Your task to perform on an android device: Show the shopping cart on bestbuy.com. Search for "razer huntsman" on bestbuy.com, select the first entry, add it to the cart, then select checkout. Image 0: 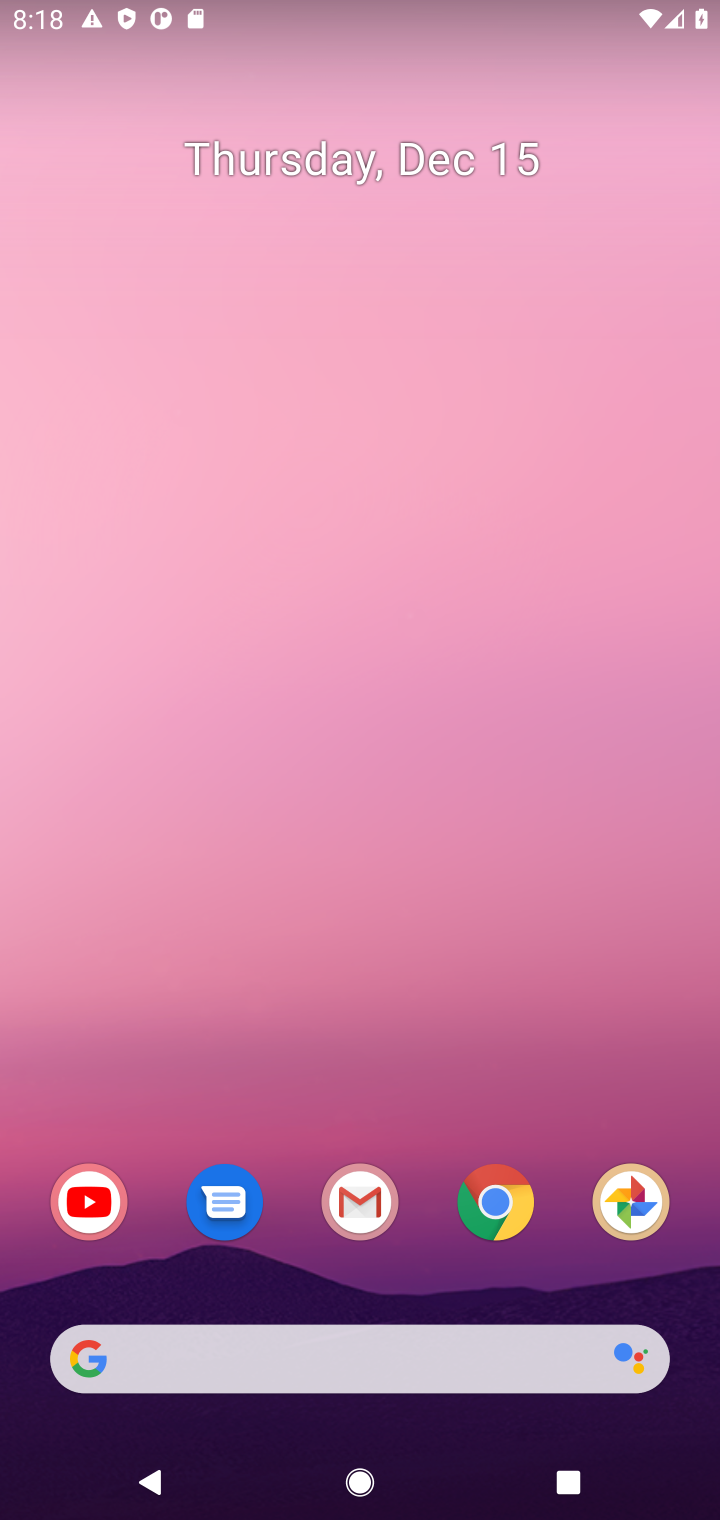
Step 0: click (497, 1206)
Your task to perform on an android device: Show the shopping cart on bestbuy.com. Search for "razer huntsman" on bestbuy.com, select the first entry, add it to the cart, then select checkout. Image 1: 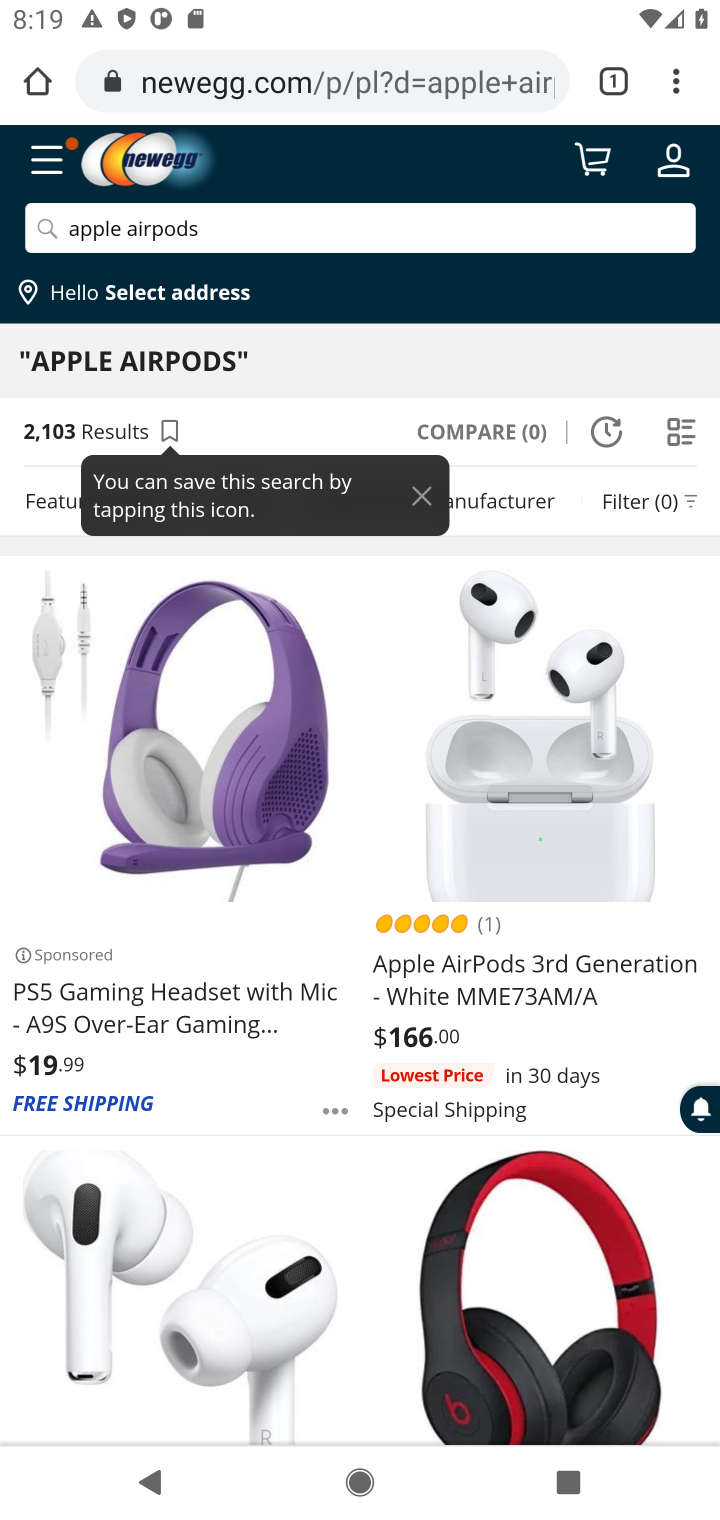
Step 1: click (369, 92)
Your task to perform on an android device: Show the shopping cart on bestbuy.com. Search for "razer huntsman" on bestbuy.com, select the first entry, add it to the cart, then select checkout. Image 2: 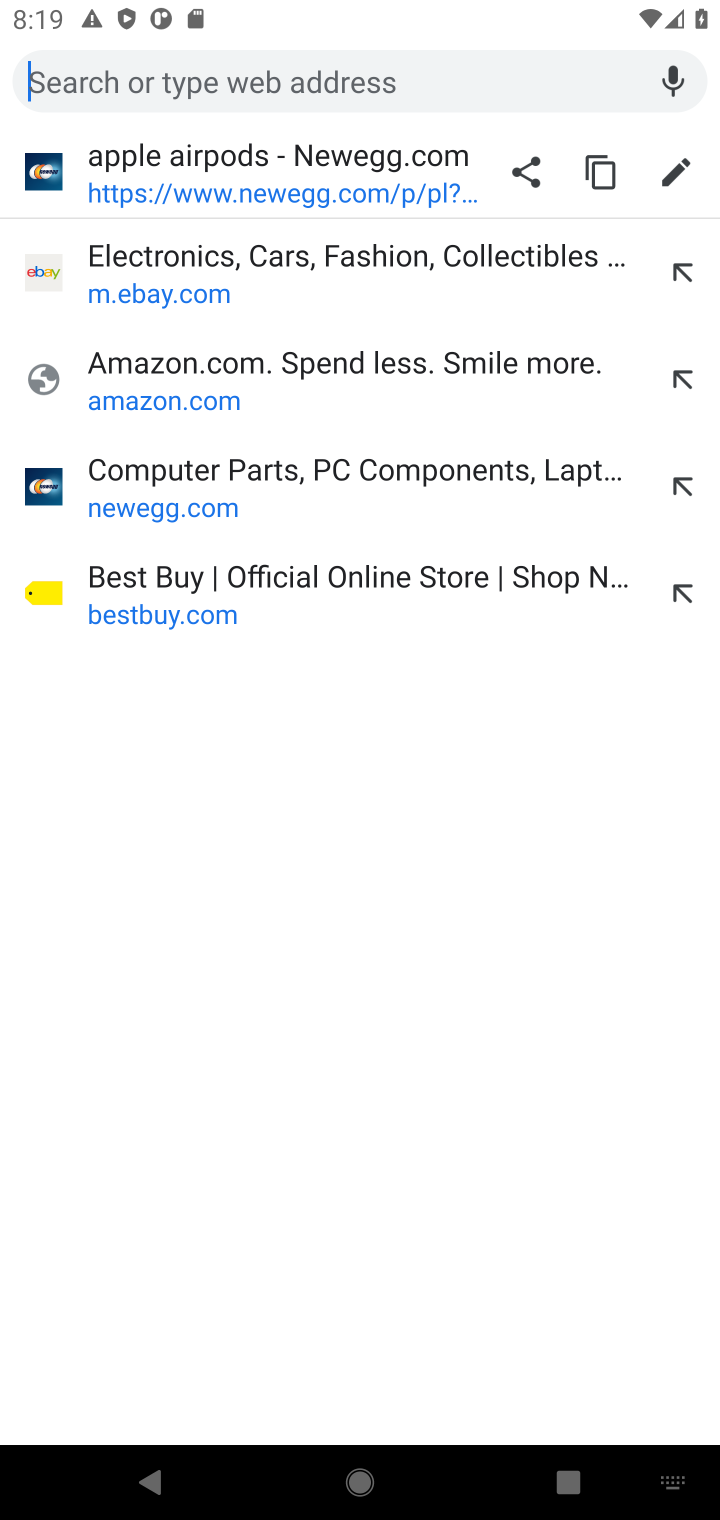
Step 2: click (156, 587)
Your task to perform on an android device: Show the shopping cart on bestbuy.com. Search for "razer huntsman" on bestbuy.com, select the first entry, add it to the cart, then select checkout. Image 3: 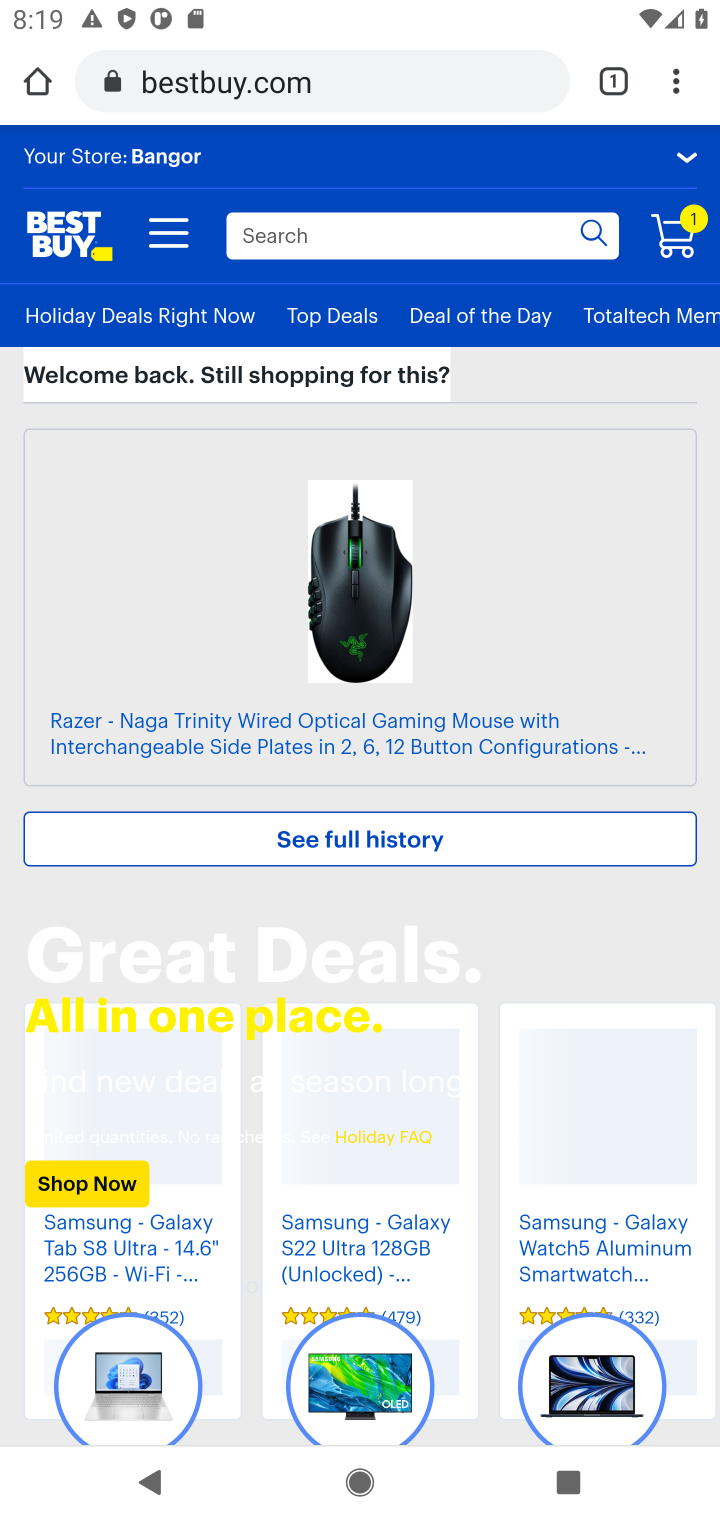
Step 3: click (670, 233)
Your task to perform on an android device: Show the shopping cart on bestbuy.com. Search for "razer huntsman" on bestbuy.com, select the first entry, add it to the cart, then select checkout. Image 4: 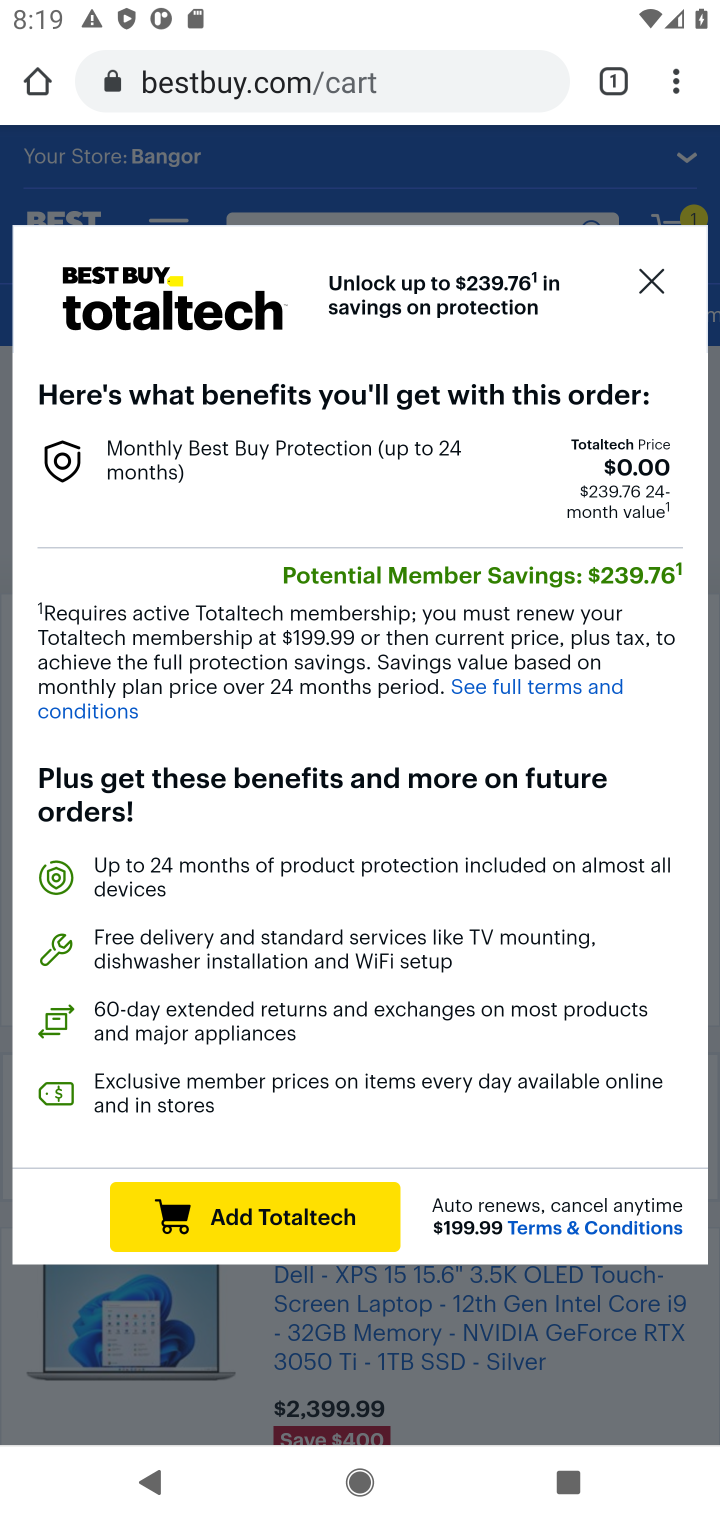
Step 4: click (652, 286)
Your task to perform on an android device: Show the shopping cart on bestbuy.com. Search for "razer huntsman" on bestbuy.com, select the first entry, add it to the cart, then select checkout. Image 5: 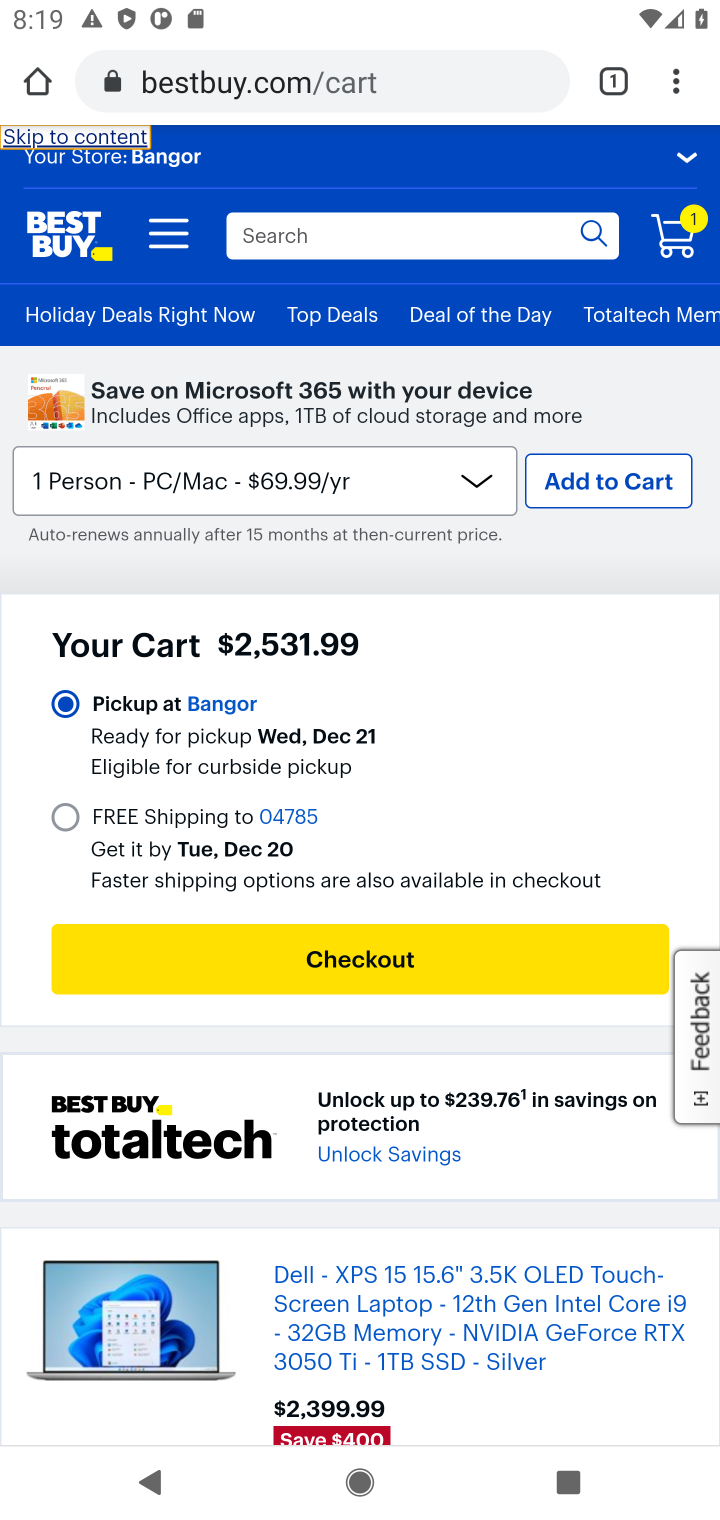
Step 5: click (372, 248)
Your task to perform on an android device: Show the shopping cart on bestbuy.com. Search for "razer huntsman" on bestbuy.com, select the first entry, add it to the cart, then select checkout. Image 6: 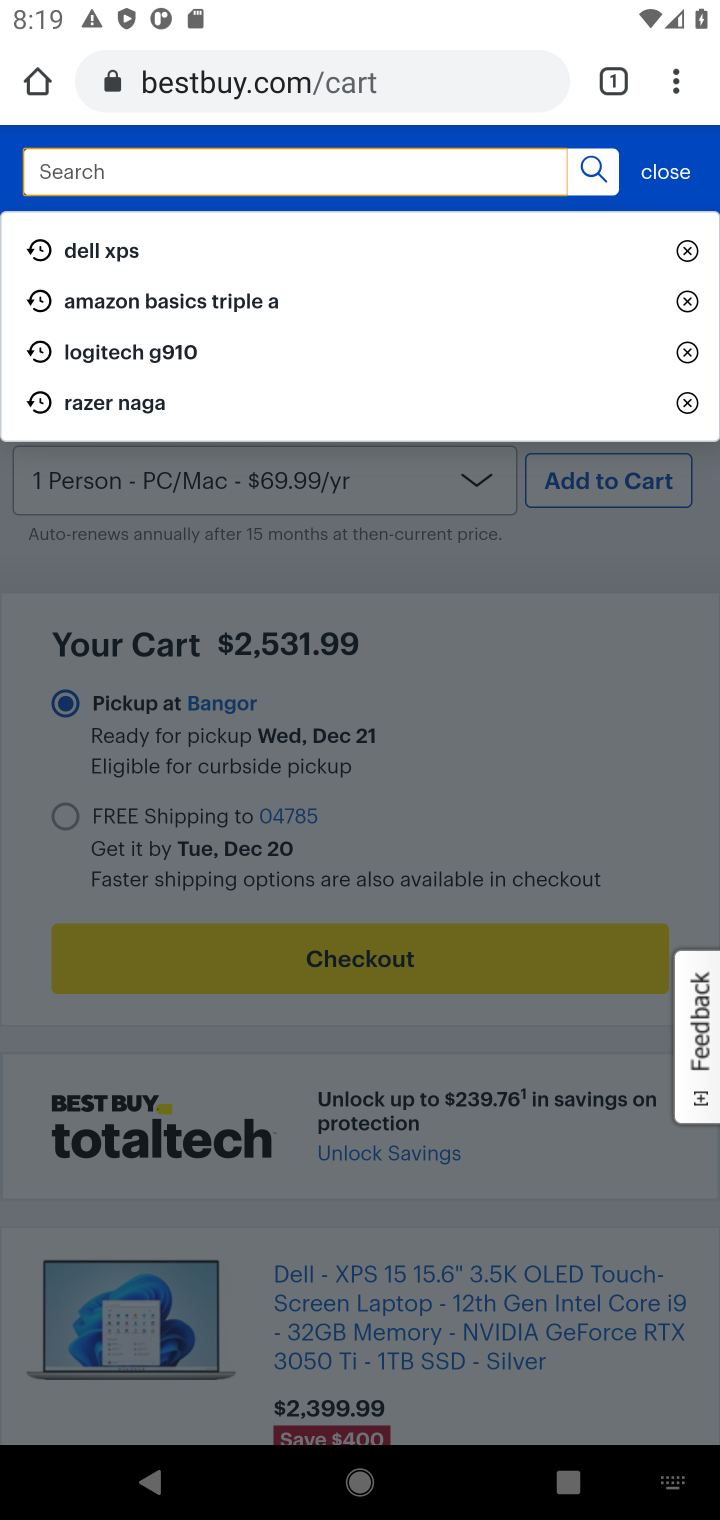
Step 6: type "razer huntsman"
Your task to perform on an android device: Show the shopping cart on bestbuy.com. Search for "razer huntsman" on bestbuy.com, select the first entry, add it to the cart, then select checkout. Image 7: 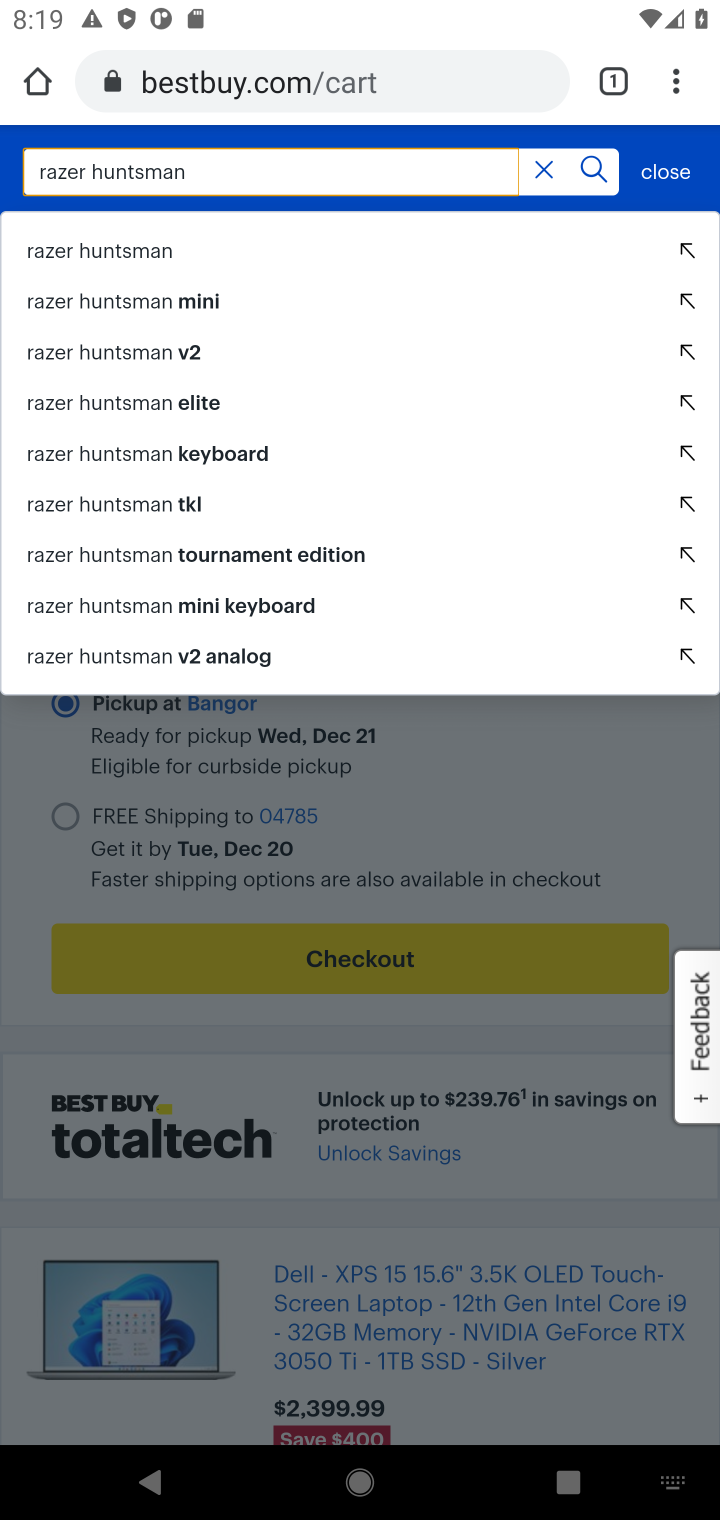
Step 7: click (110, 245)
Your task to perform on an android device: Show the shopping cart on bestbuy.com. Search for "razer huntsman" on bestbuy.com, select the first entry, add it to the cart, then select checkout. Image 8: 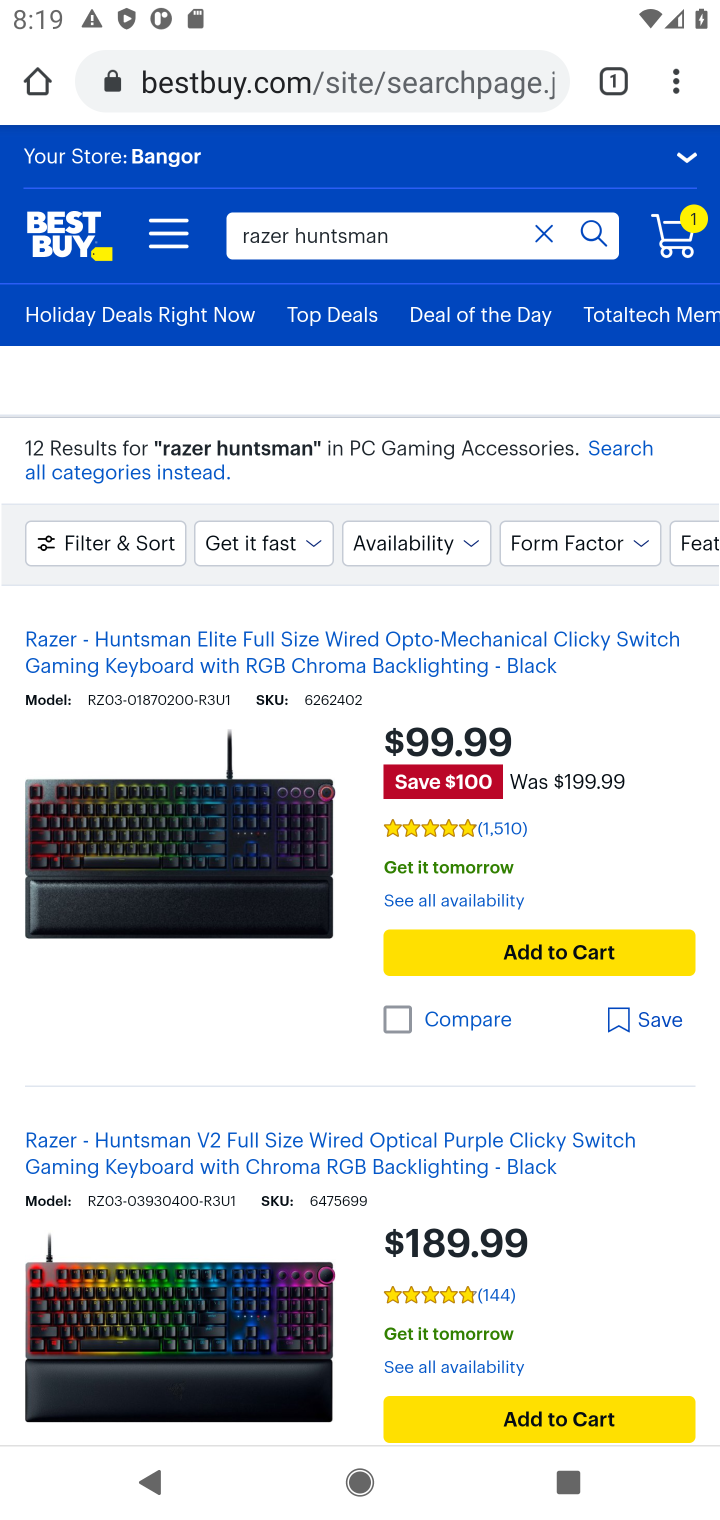
Step 8: click (469, 939)
Your task to perform on an android device: Show the shopping cart on bestbuy.com. Search for "razer huntsman" on bestbuy.com, select the first entry, add it to the cart, then select checkout. Image 9: 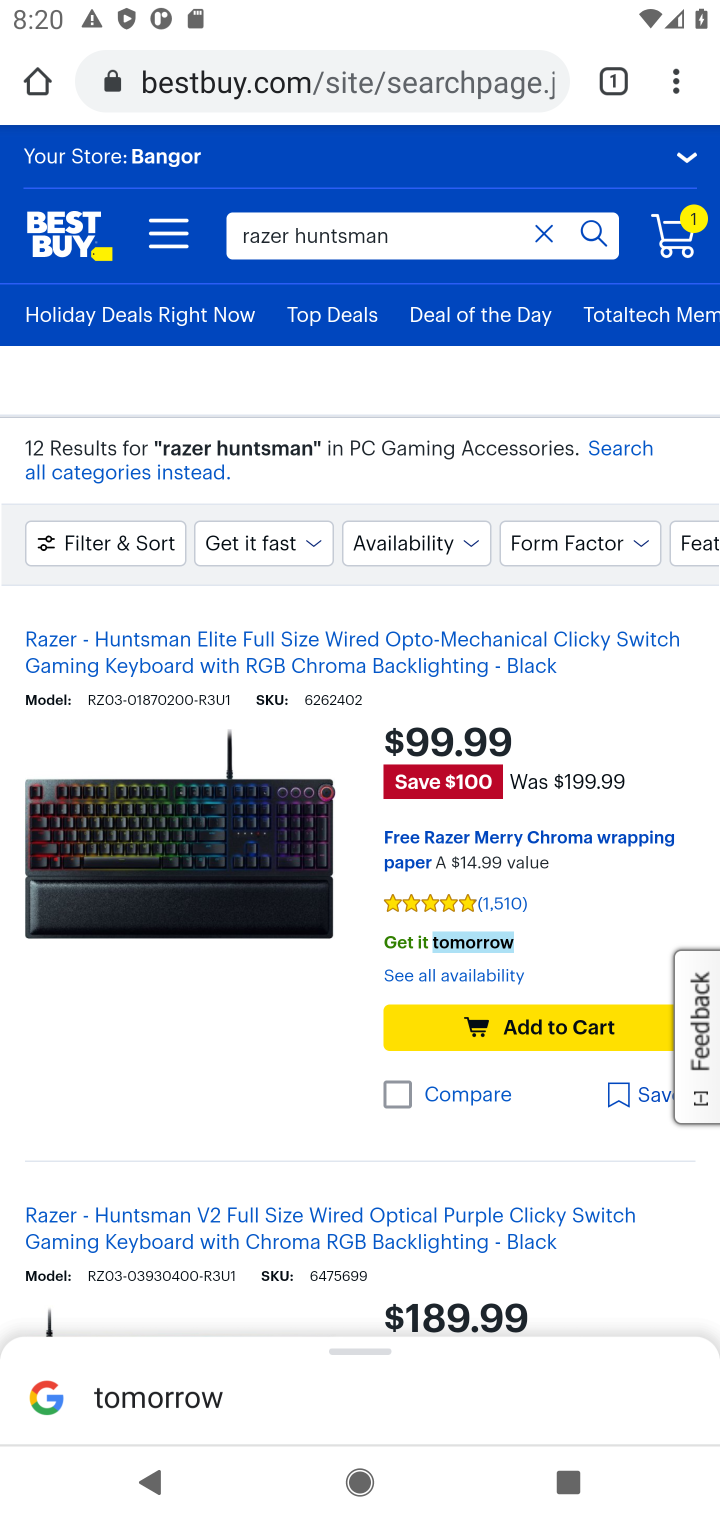
Step 9: click (212, 654)
Your task to perform on an android device: Show the shopping cart on bestbuy.com. Search for "razer huntsman" on bestbuy.com, select the first entry, add it to the cart, then select checkout. Image 10: 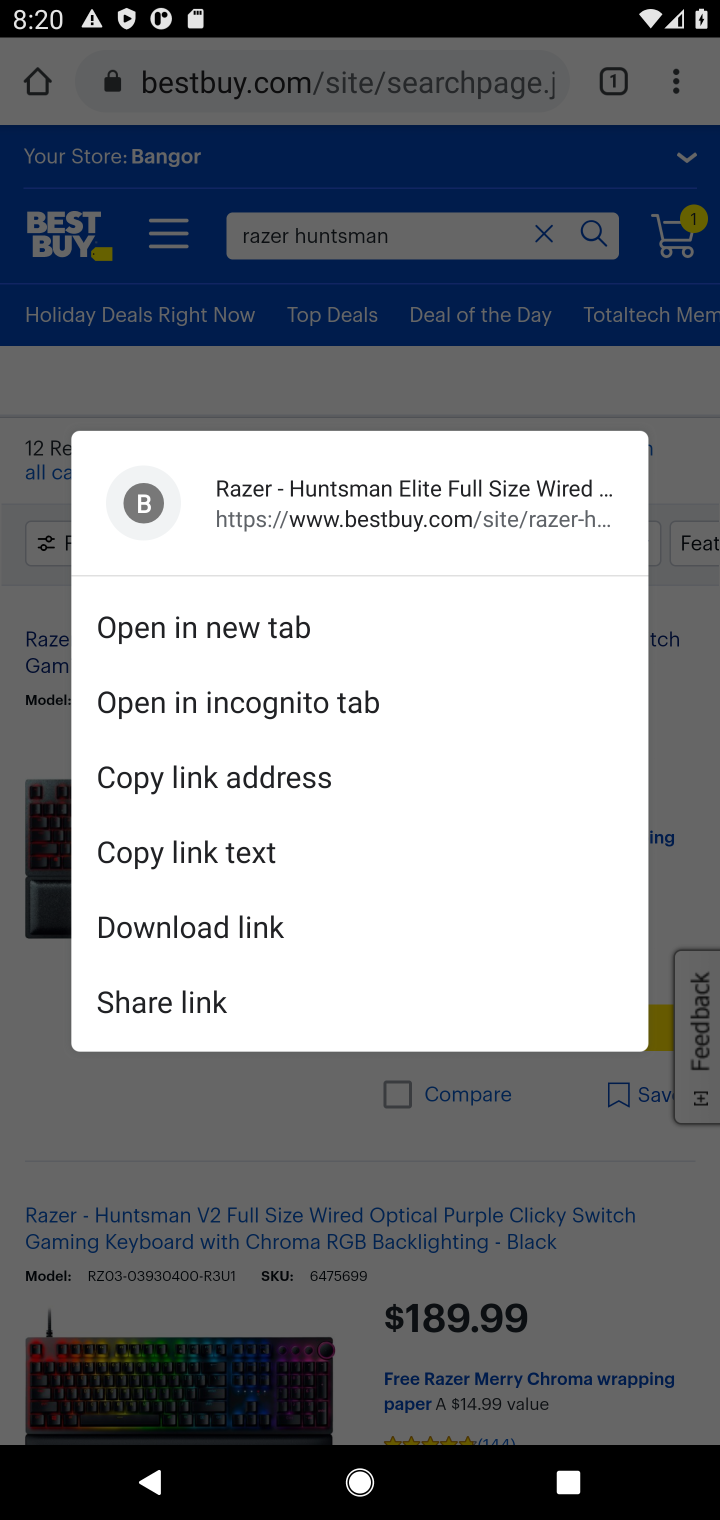
Step 10: click (48, 657)
Your task to perform on an android device: Show the shopping cart on bestbuy.com. Search for "razer huntsman" on bestbuy.com, select the first entry, add it to the cart, then select checkout. Image 11: 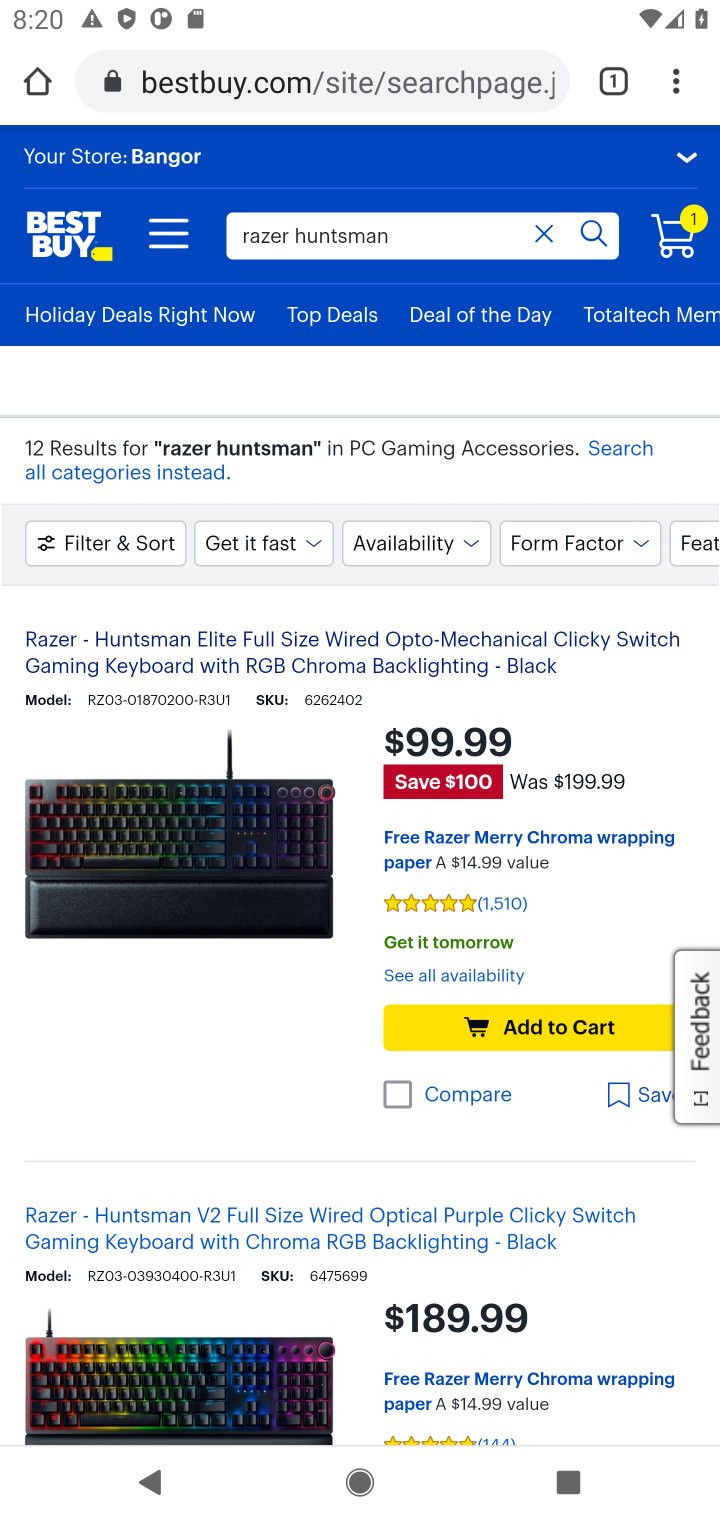
Step 11: click (48, 657)
Your task to perform on an android device: Show the shopping cart on bestbuy.com. Search for "razer huntsman" on bestbuy.com, select the first entry, add it to the cart, then select checkout. Image 12: 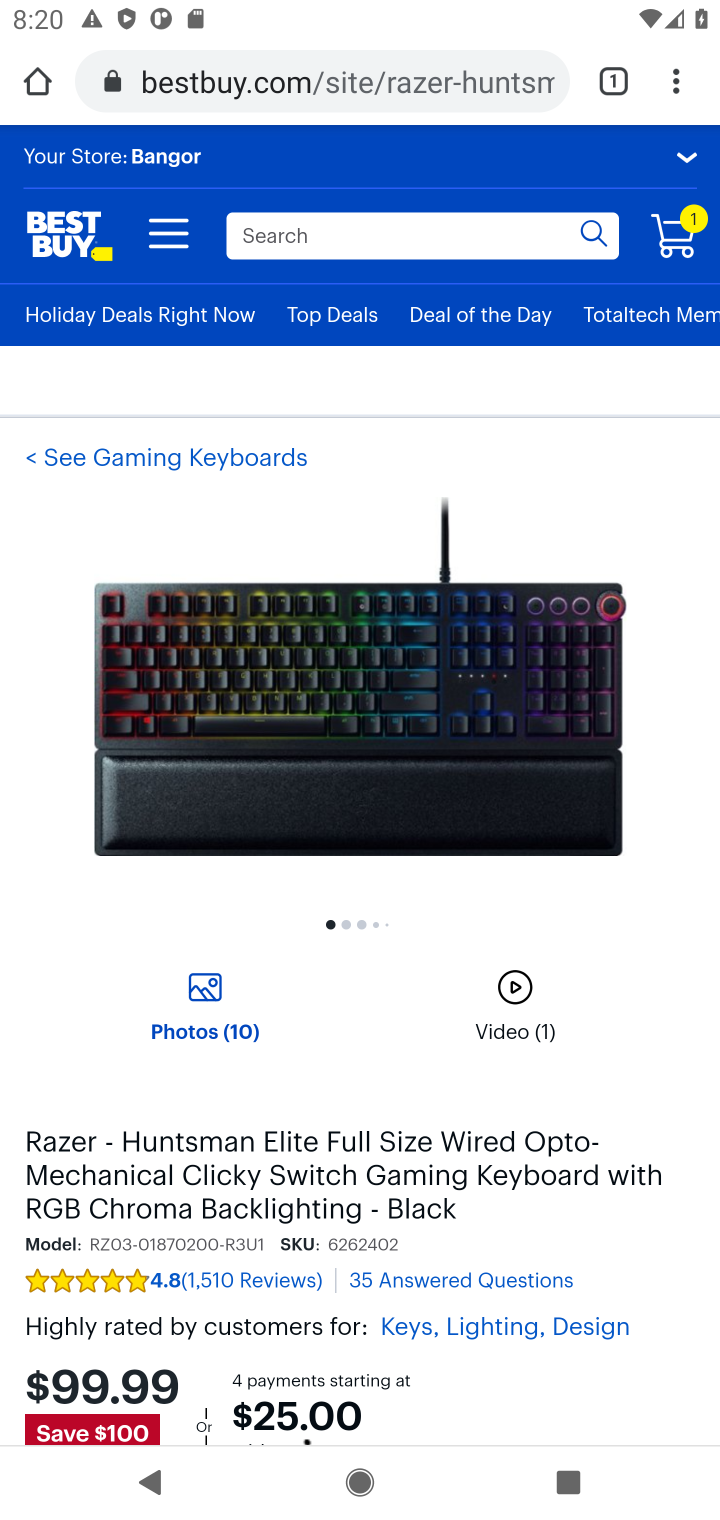
Step 12: drag from (411, 1161) to (391, 644)
Your task to perform on an android device: Show the shopping cart on bestbuy.com. Search for "razer huntsman" on bestbuy.com, select the first entry, add it to the cart, then select checkout. Image 13: 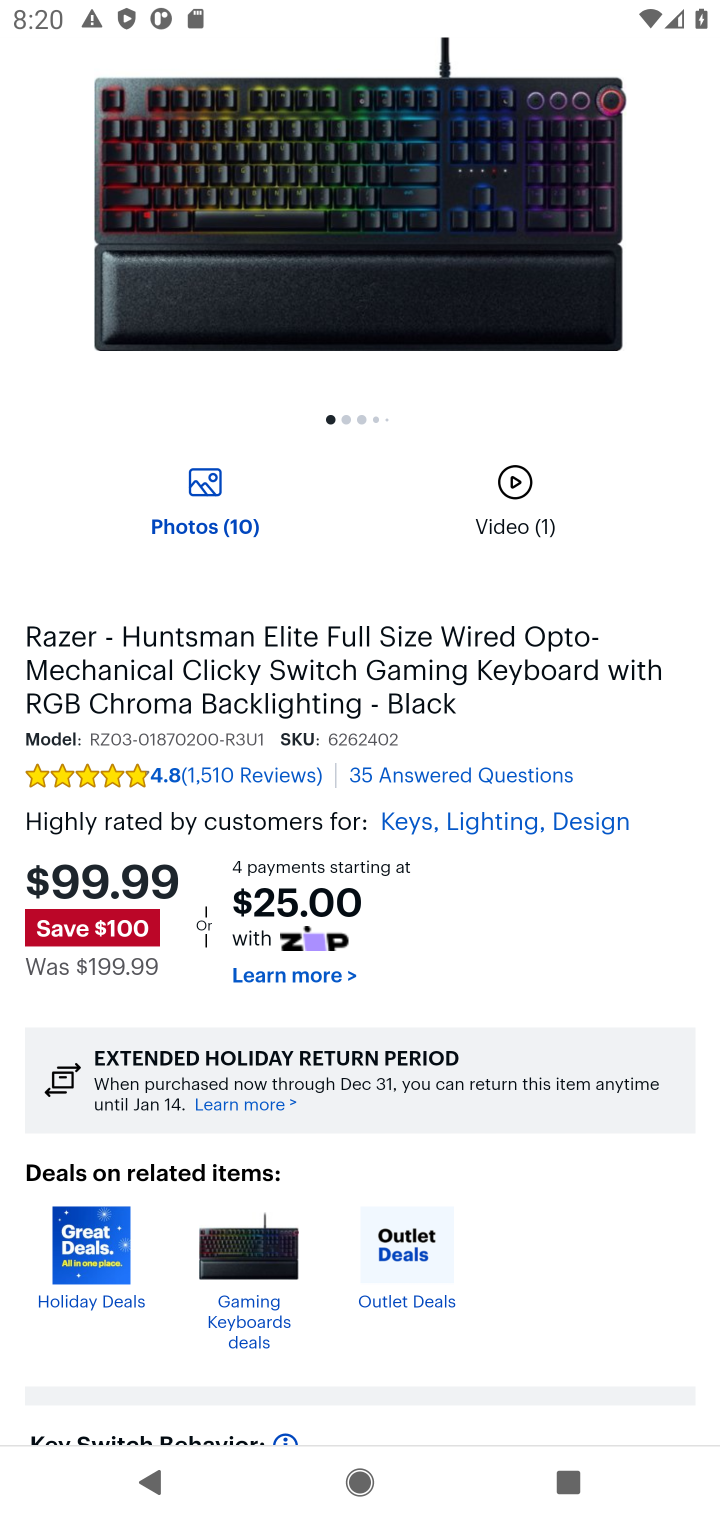
Step 13: drag from (392, 1072) to (364, 532)
Your task to perform on an android device: Show the shopping cart on bestbuy.com. Search for "razer huntsman" on bestbuy.com, select the first entry, add it to the cart, then select checkout. Image 14: 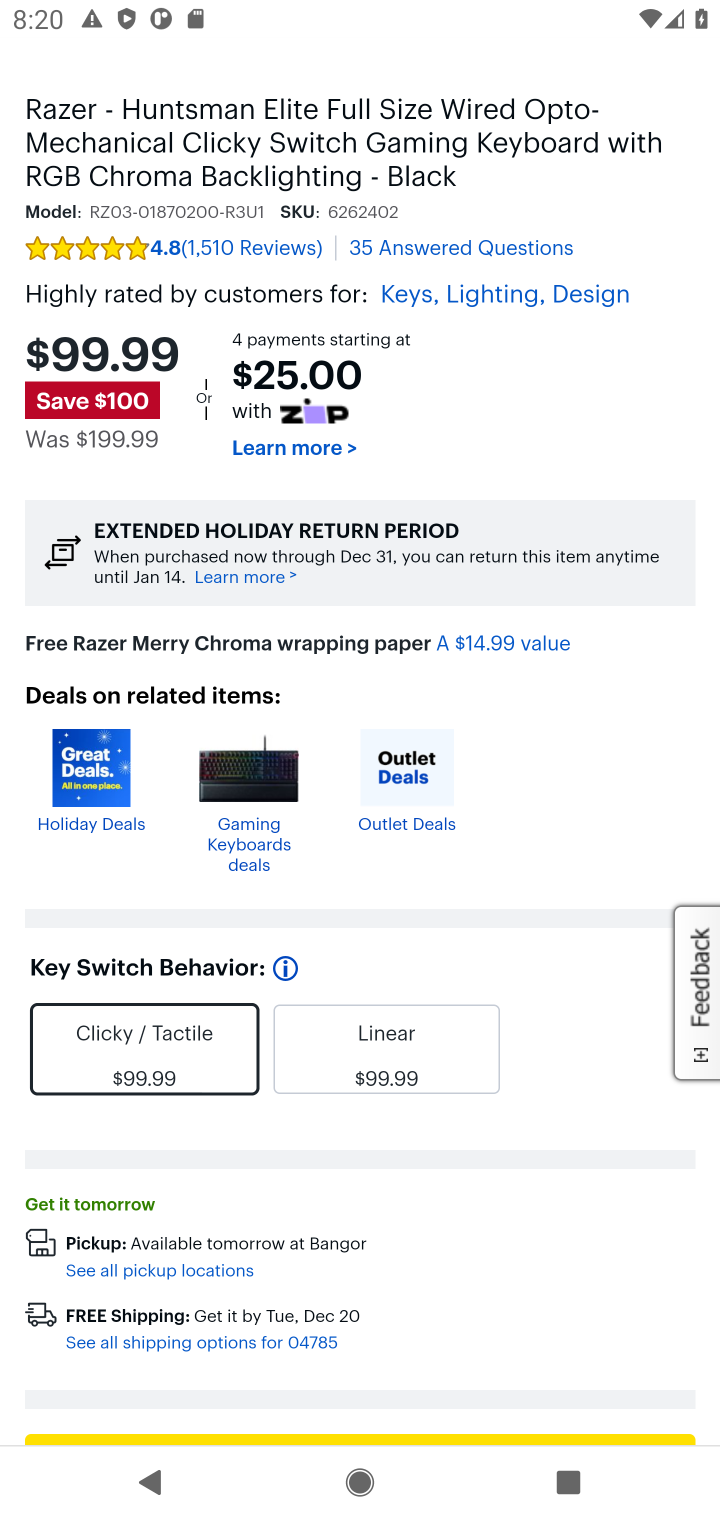
Step 14: drag from (428, 1187) to (437, 802)
Your task to perform on an android device: Show the shopping cart on bestbuy.com. Search for "razer huntsman" on bestbuy.com, select the first entry, add it to the cart, then select checkout. Image 15: 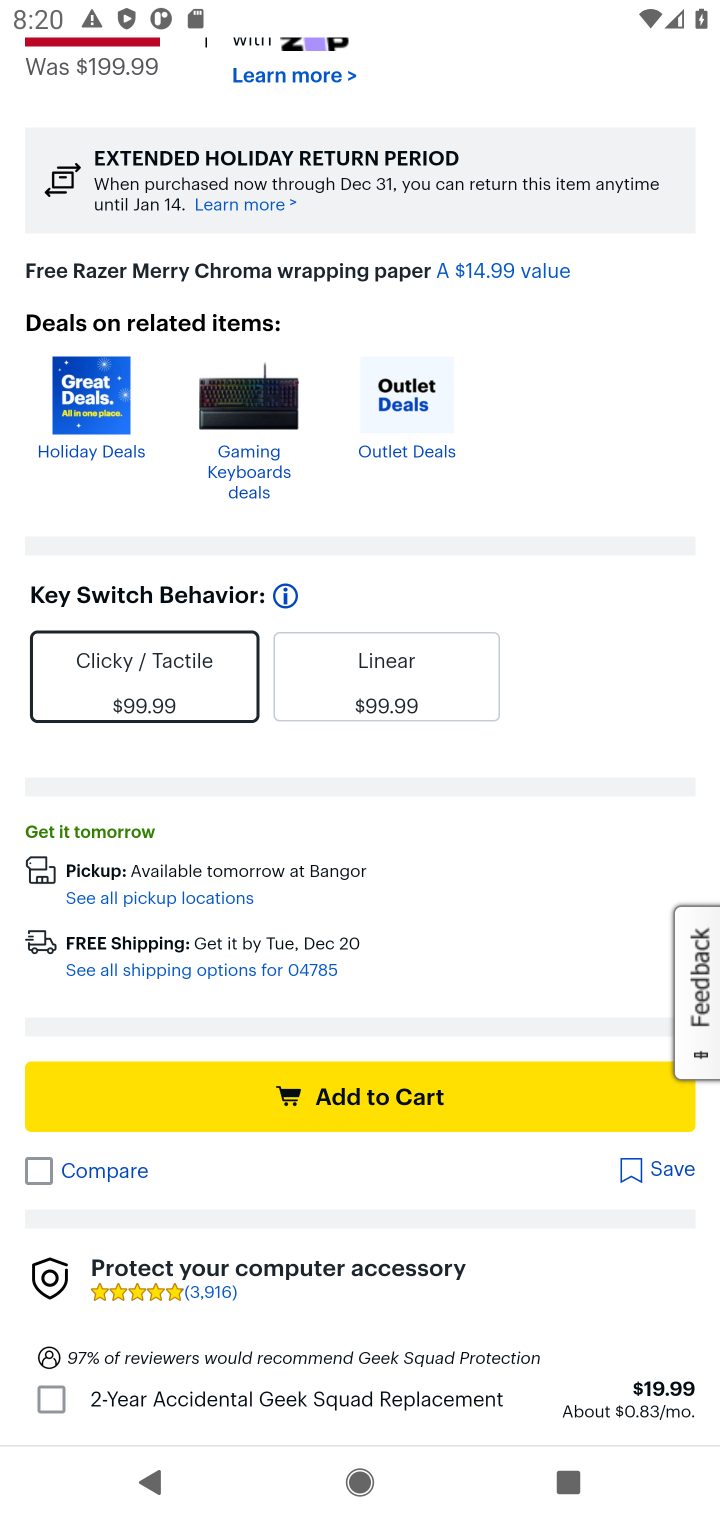
Step 15: click (358, 1092)
Your task to perform on an android device: Show the shopping cart on bestbuy.com. Search for "razer huntsman" on bestbuy.com, select the first entry, add it to the cart, then select checkout. Image 16: 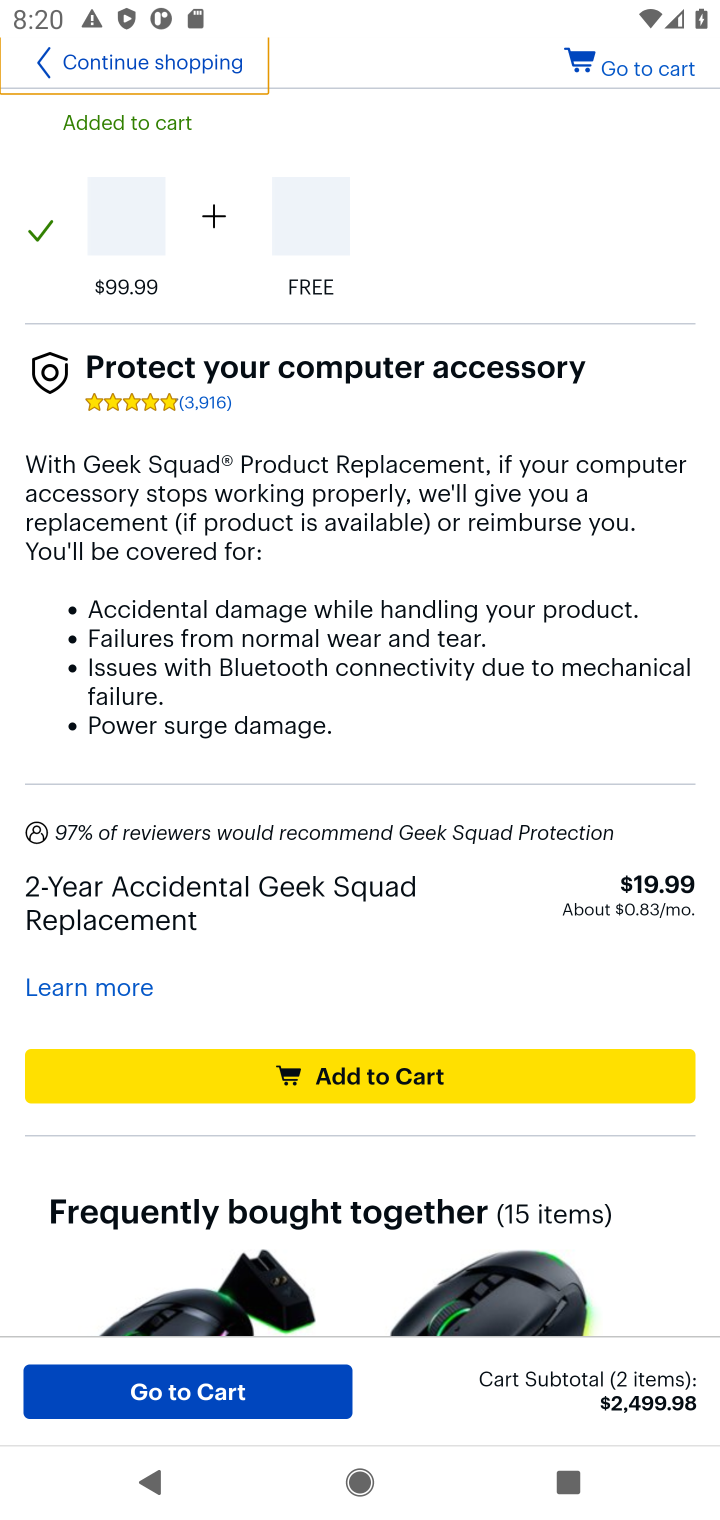
Step 16: click (629, 78)
Your task to perform on an android device: Show the shopping cart on bestbuy.com. Search for "razer huntsman" on bestbuy.com, select the first entry, add it to the cart, then select checkout. Image 17: 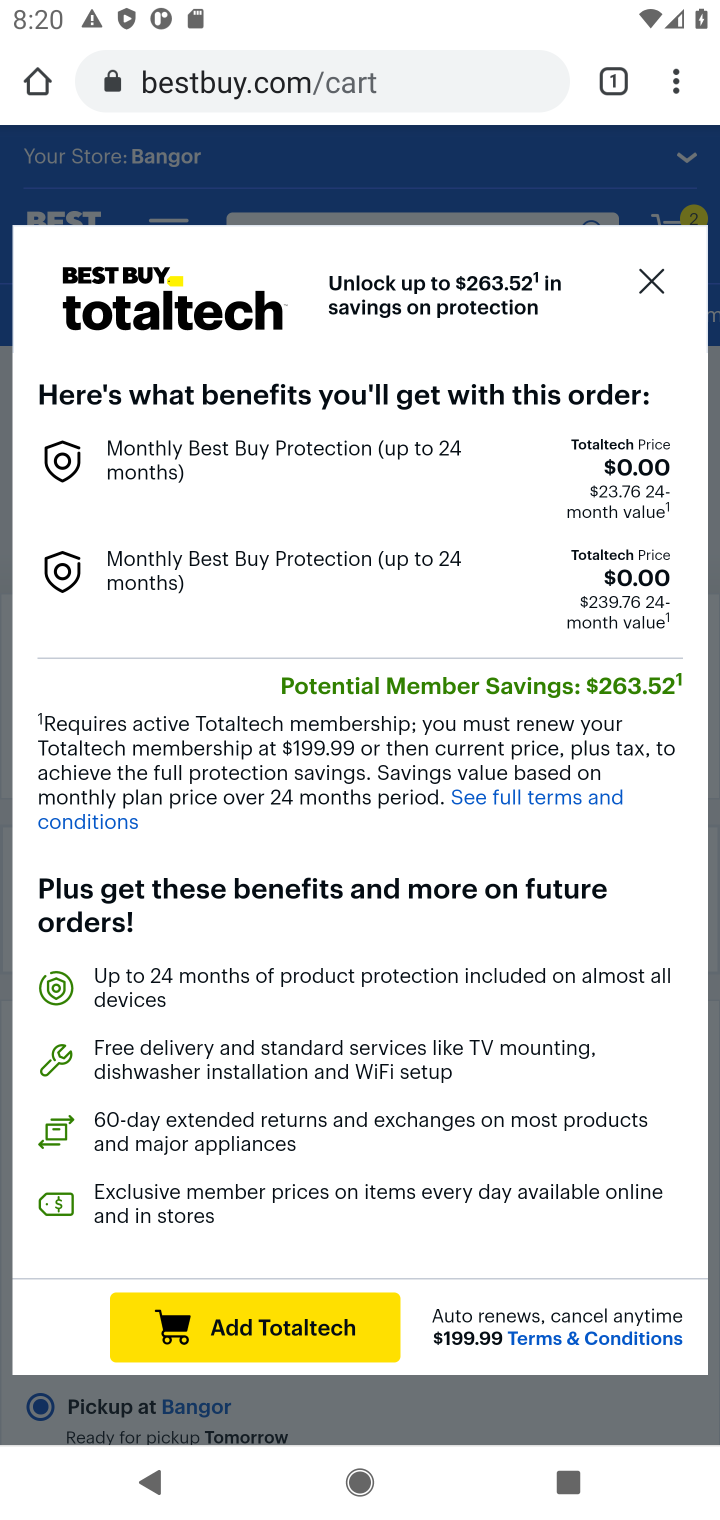
Step 17: click (644, 287)
Your task to perform on an android device: Show the shopping cart on bestbuy.com. Search for "razer huntsman" on bestbuy.com, select the first entry, add it to the cart, then select checkout. Image 18: 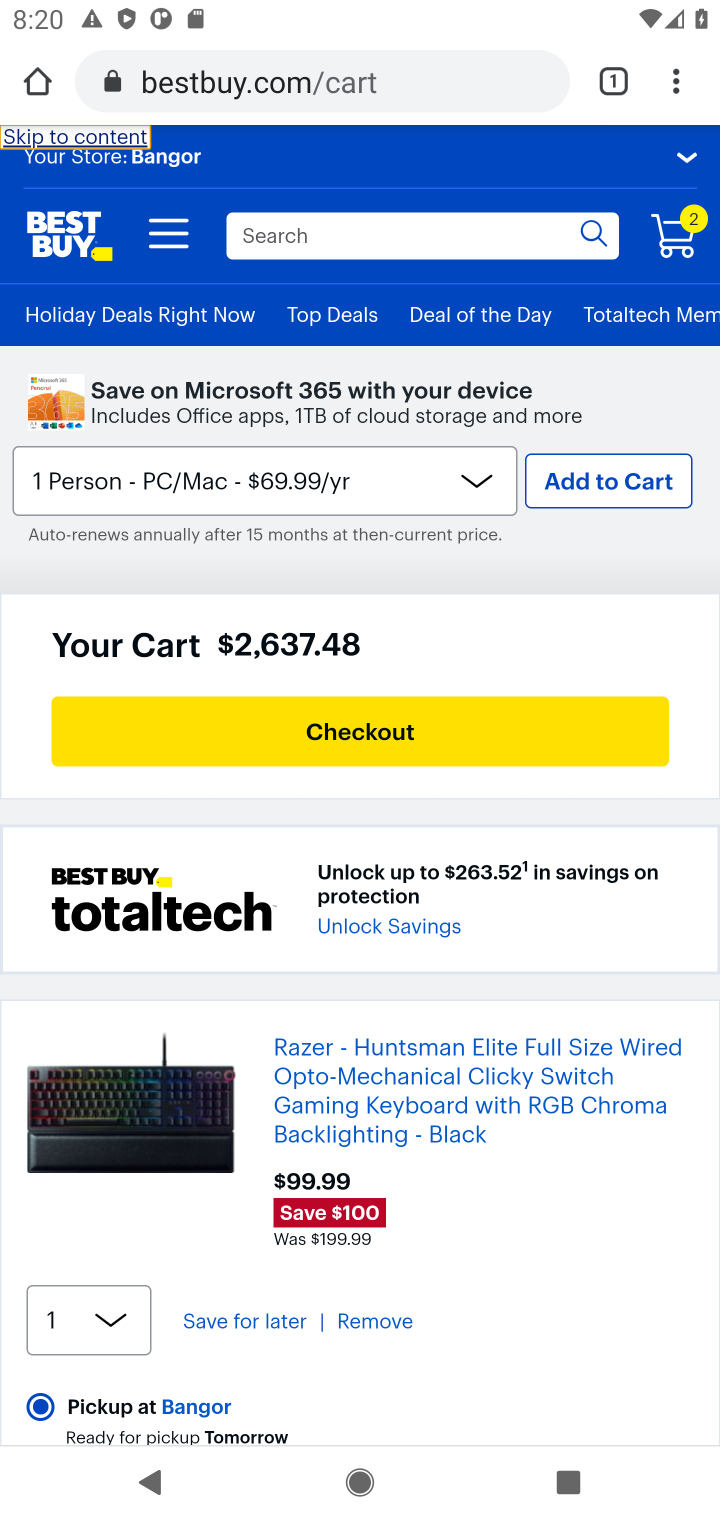
Step 18: click (259, 747)
Your task to perform on an android device: Show the shopping cart on bestbuy.com. Search for "razer huntsman" on bestbuy.com, select the first entry, add it to the cart, then select checkout. Image 19: 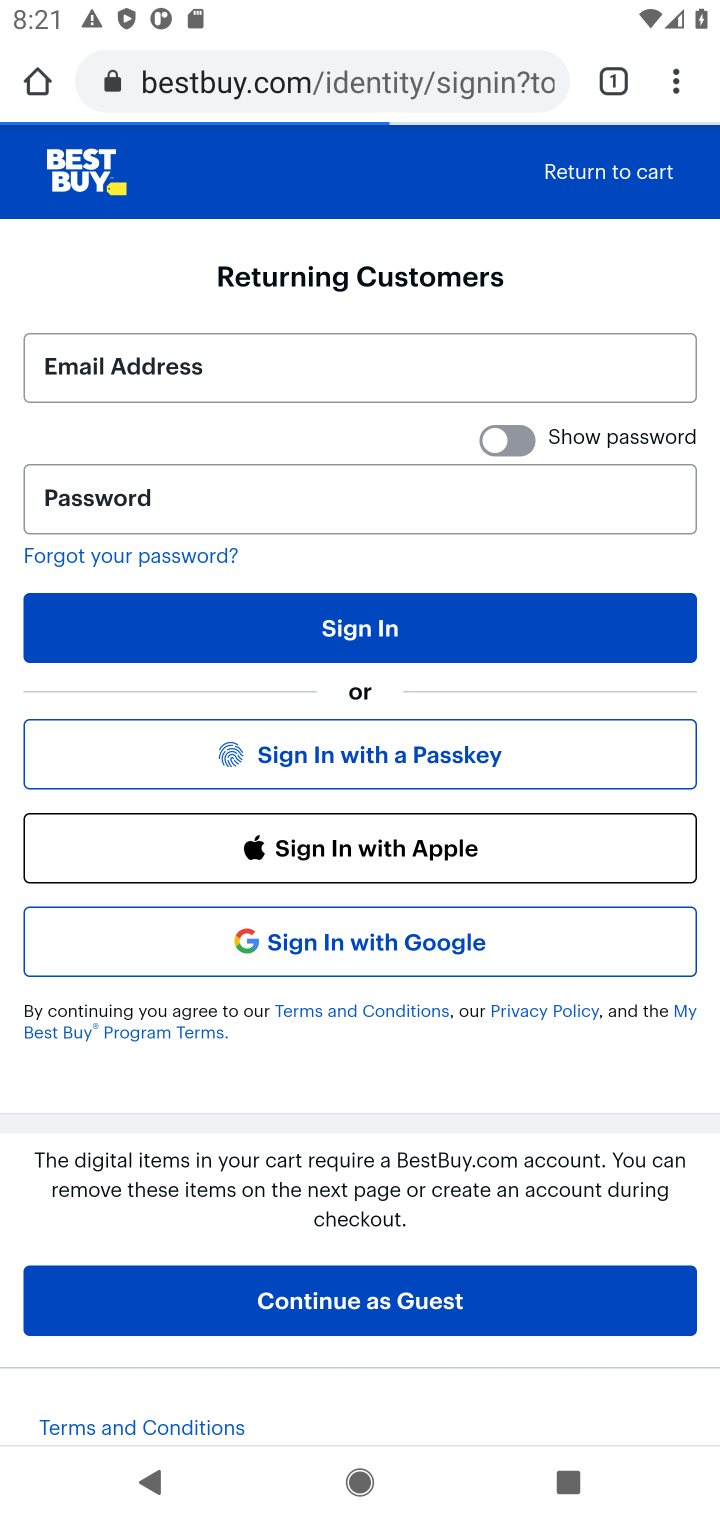
Step 19: task complete